Your task to perform on an android device: What is the recent news? Image 0: 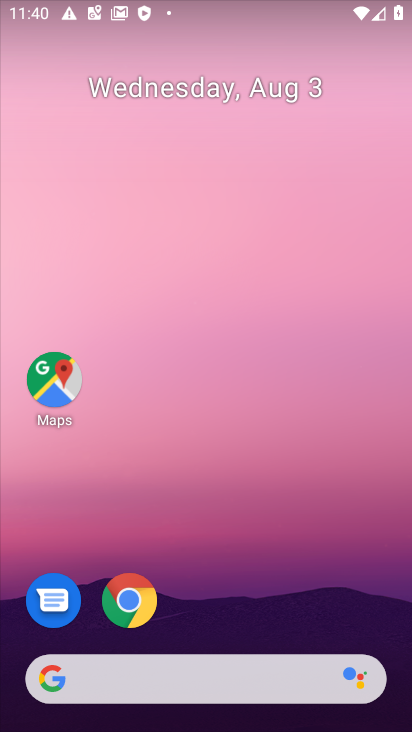
Step 0: press home button
Your task to perform on an android device: What is the recent news? Image 1: 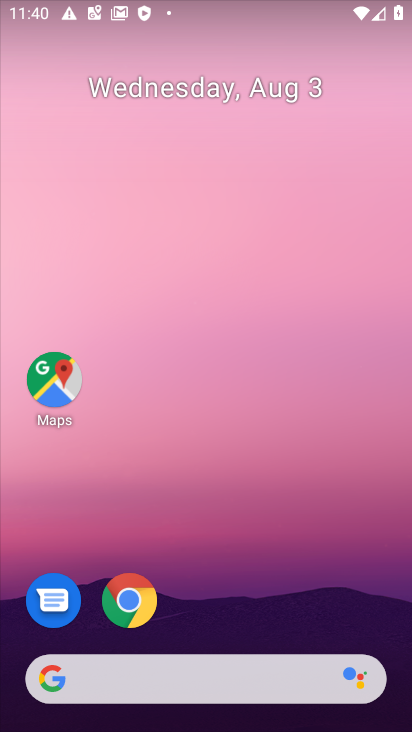
Step 1: click (127, 675)
Your task to perform on an android device: What is the recent news? Image 2: 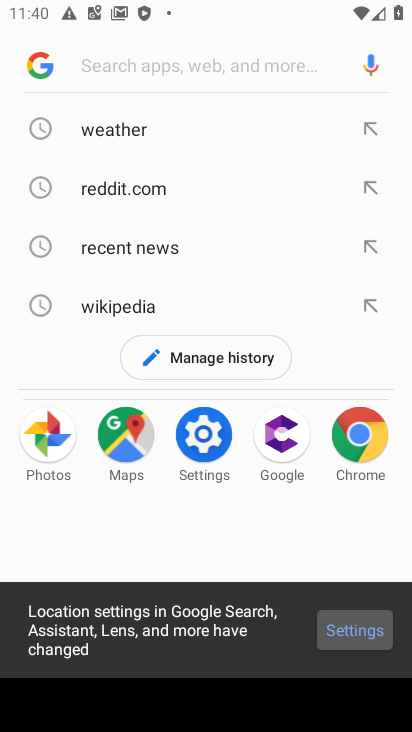
Step 2: click (142, 243)
Your task to perform on an android device: What is the recent news? Image 3: 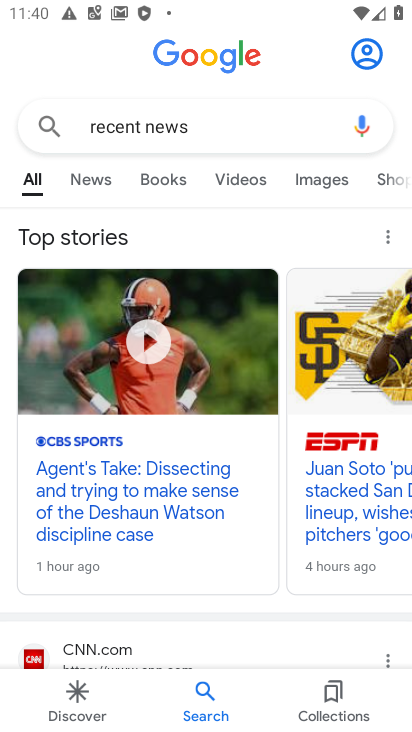
Step 3: click (81, 179)
Your task to perform on an android device: What is the recent news? Image 4: 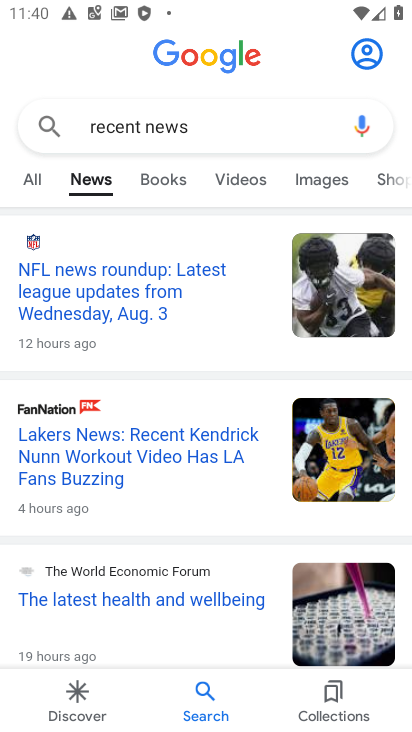
Step 4: task complete